Your task to perform on an android device: open the mobile data screen to see how much data has been used Image 0: 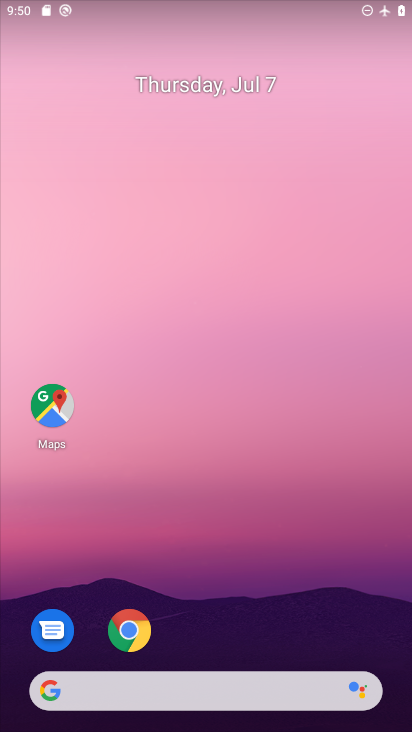
Step 0: drag from (214, 633) to (178, 124)
Your task to perform on an android device: open the mobile data screen to see how much data has been used Image 1: 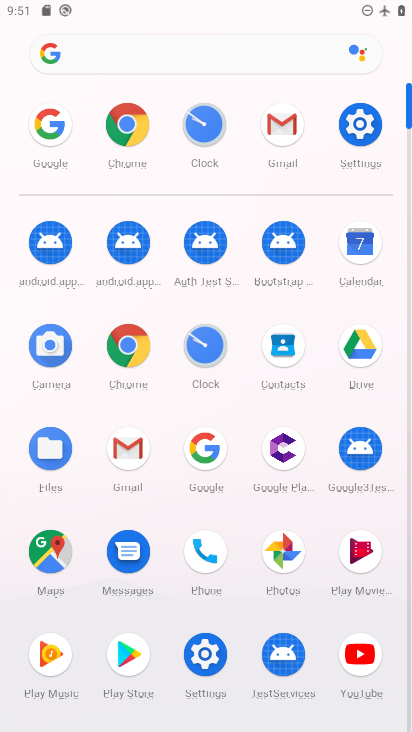
Step 1: click (352, 129)
Your task to perform on an android device: open the mobile data screen to see how much data has been used Image 2: 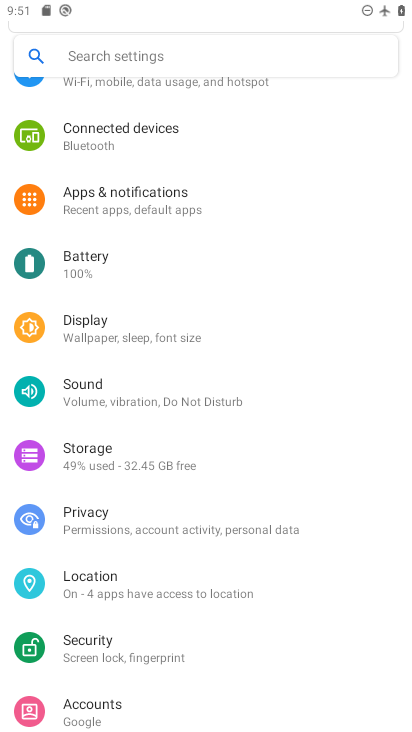
Step 2: drag from (152, 201) to (175, 504)
Your task to perform on an android device: open the mobile data screen to see how much data has been used Image 3: 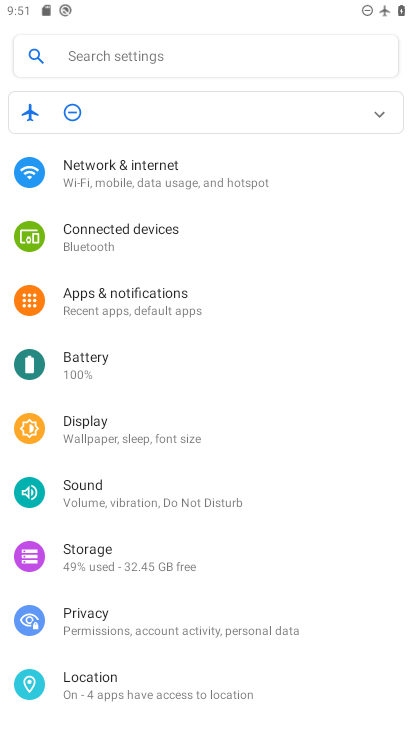
Step 3: click (127, 191)
Your task to perform on an android device: open the mobile data screen to see how much data has been used Image 4: 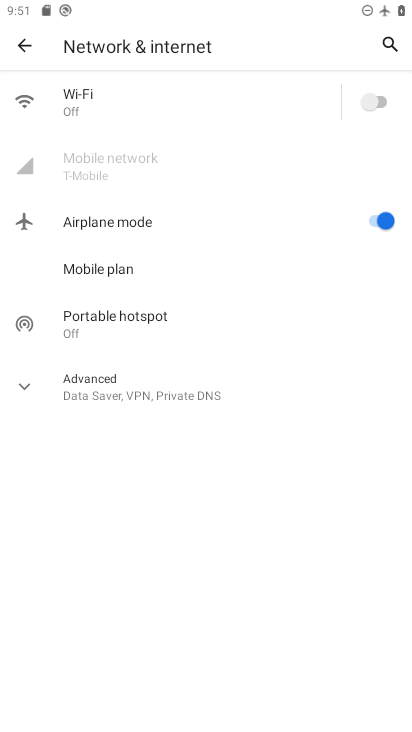
Step 4: click (155, 166)
Your task to perform on an android device: open the mobile data screen to see how much data has been used Image 5: 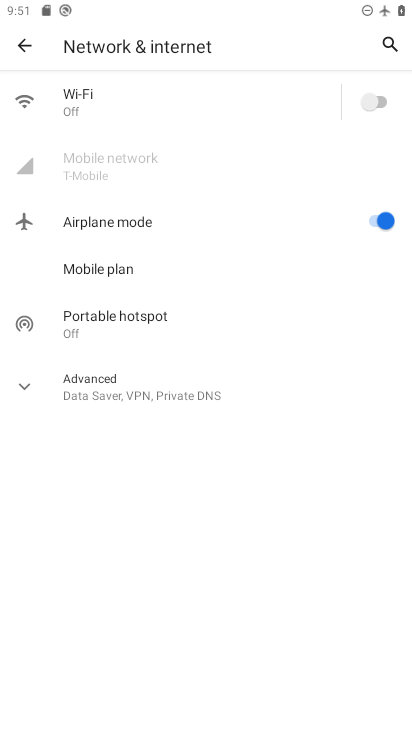
Step 5: click (112, 157)
Your task to perform on an android device: open the mobile data screen to see how much data has been used Image 6: 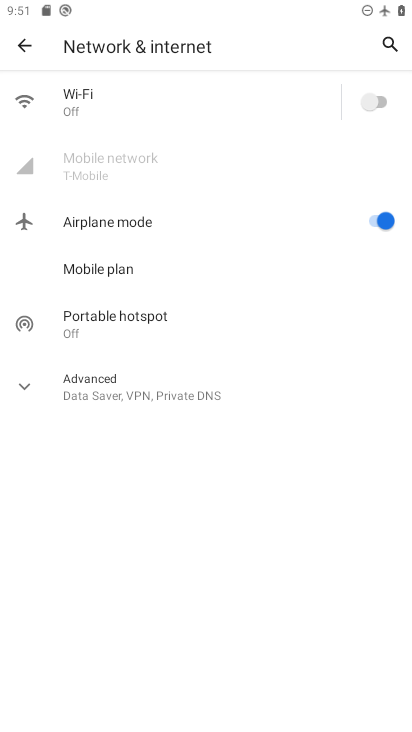
Step 6: task complete